Your task to perform on an android device: change timer sound Image 0: 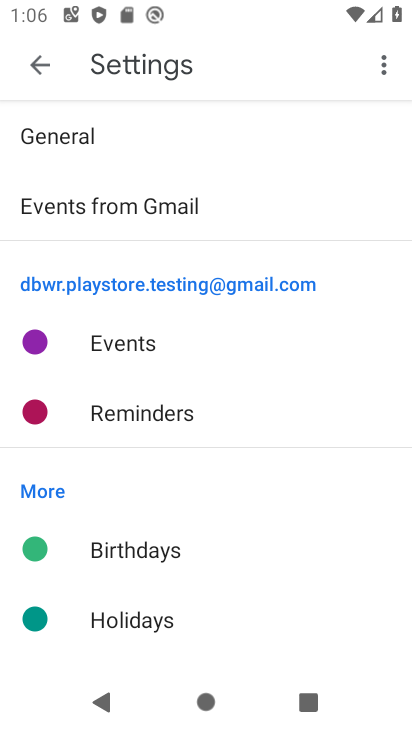
Step 0: click (344, 67)
Your task to perform on an android device: change timer sound Image 1: 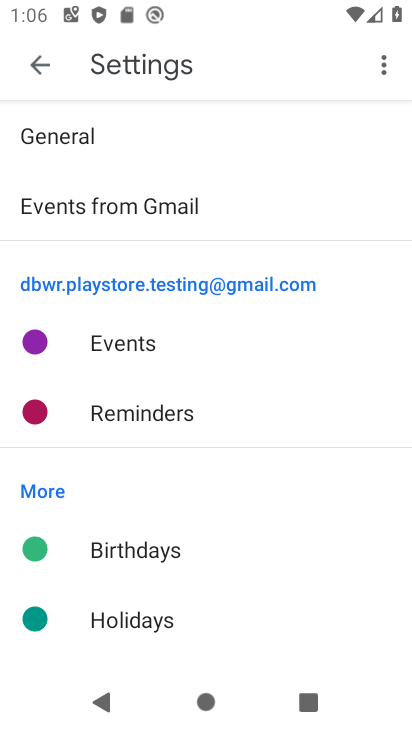
Step 1: press home button
Your task to perform on an android device: change timer sound Image 2: 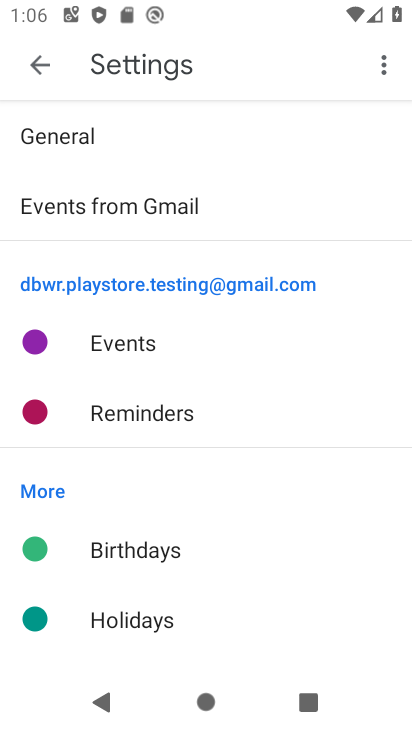
Step 2: drag from (344, 67) to (401, 546)
Your task to perform on an android device: change timer sound Image 3: 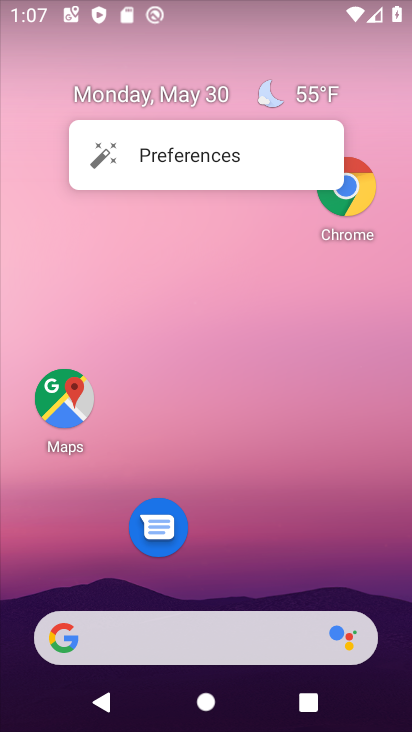
Step 3: drag from (195, 587) to (131, 0)
Your task to perform on an android device: change timer sound Image 4: 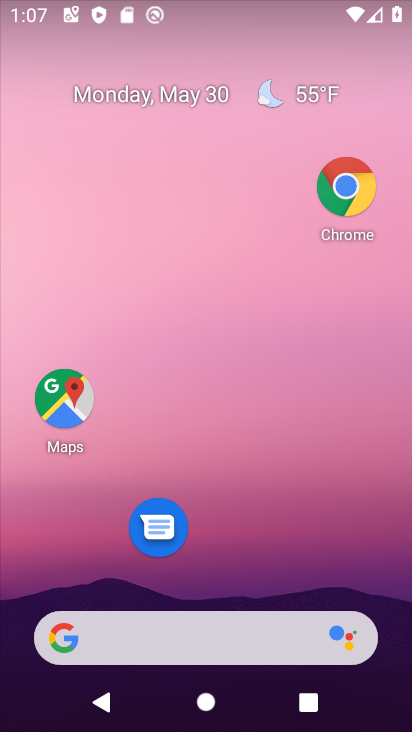
Step 4: drag from (218, 545) to (208, 2)
Your task to perform on an android device: change timer sound Image 5: 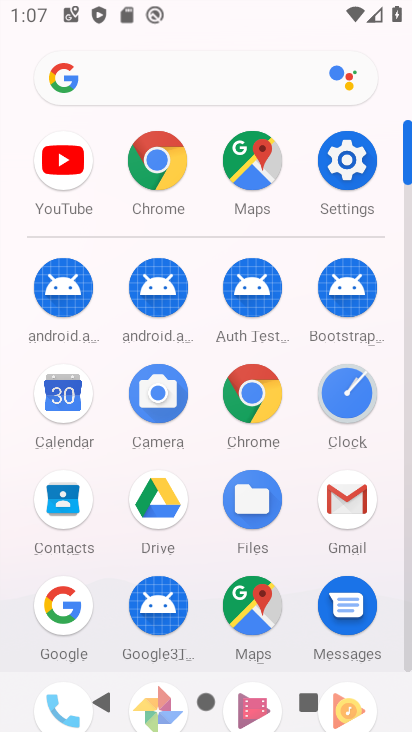
Step 5: click (349, 413)
Your task to perform on an android device: change timer sound Image 6: 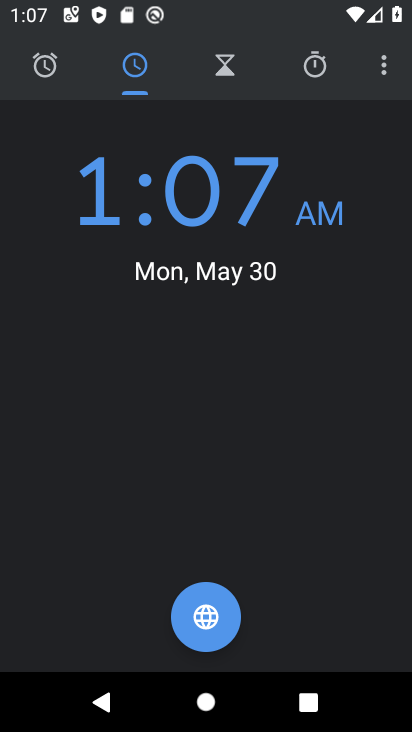
Step 6: click (231, 65)
Your task to perform on an android device: change timer sound Image 7: 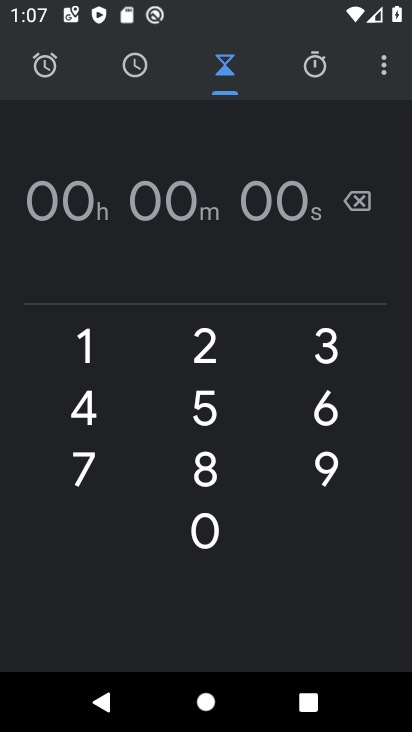
Step 7: click (204, 345)
Your task to perform on an android device: change timer sound Image 8: 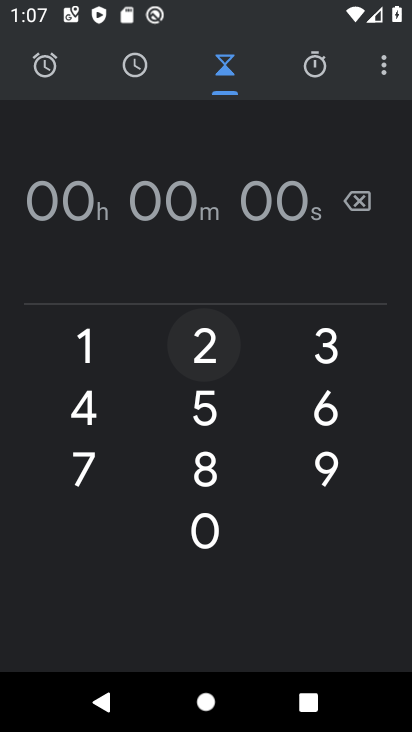
Step 8: click (222, 424)
Your task to perform on an android device: change timer sound Image 9: 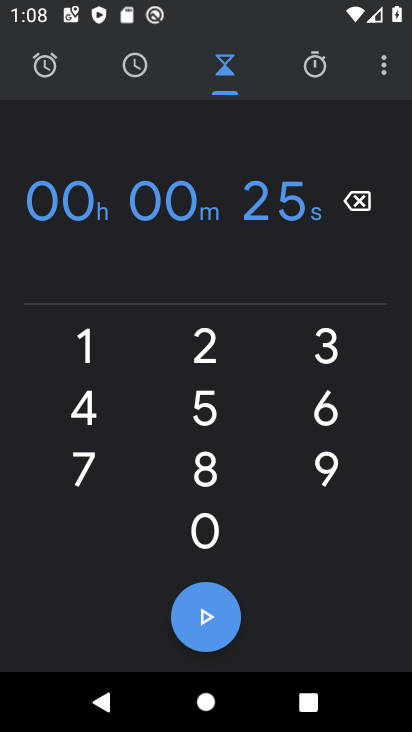
Step 9: click (204, 519)
Your task to perform on an android device: change timer sound Image 10: 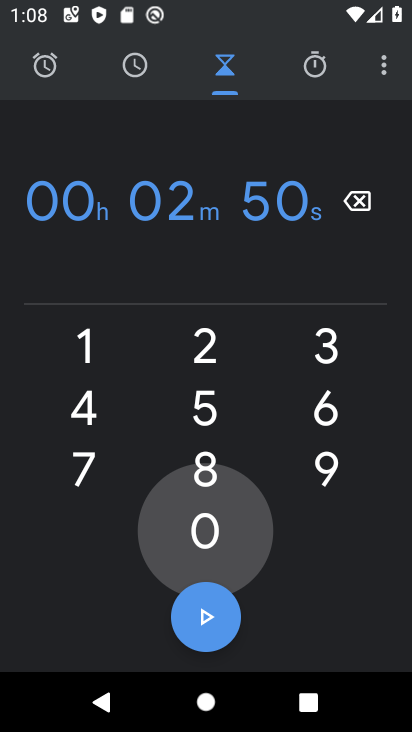
Step 10: click (202, 473)
Your task to perform on an android device: change timer sound Image 11: 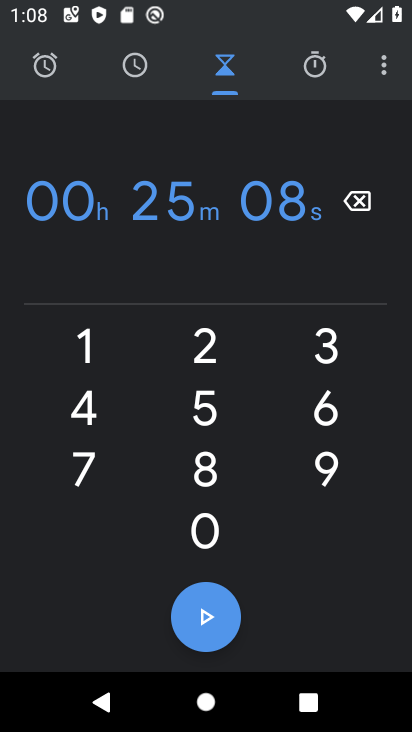
Step 11: click (204, 613)
Your task to perform on an android device: change timer sound Image 12: 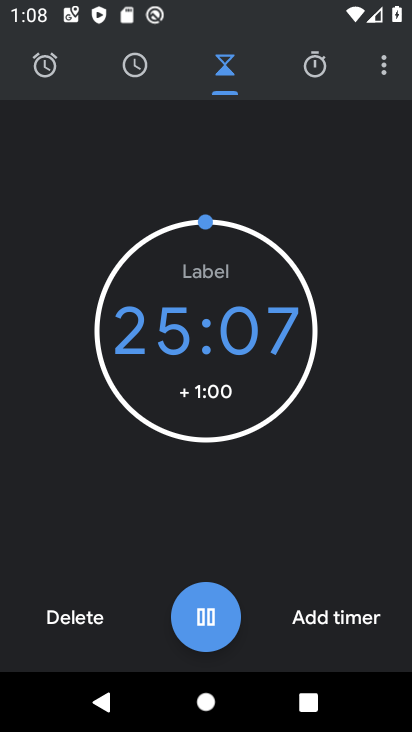
Step 12: task complete